Your task to perform on an android device: Search for Mexican restaurants on Maps Image 0: 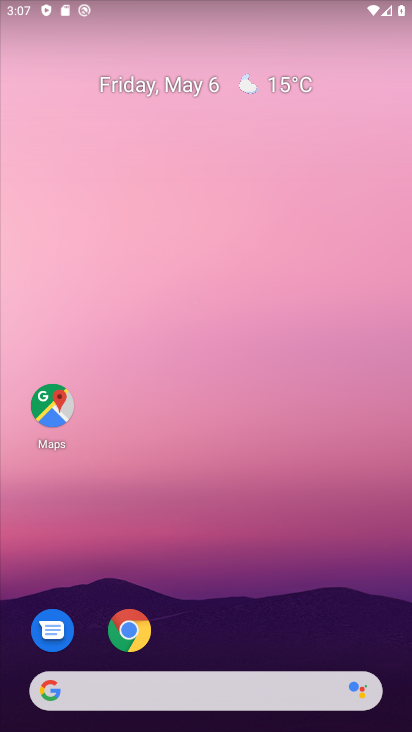
Step 0: click (53, 403)
Your task to perform on an android device: Search for Mexican restaurants on Maps Image 1: 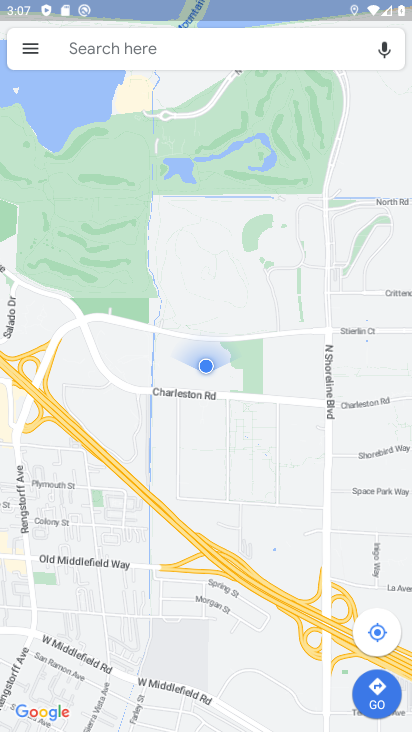
Step 1: click (166, 42)
Your task to perform on an android device: Search for Mexican restaurants on Maps Image 2: 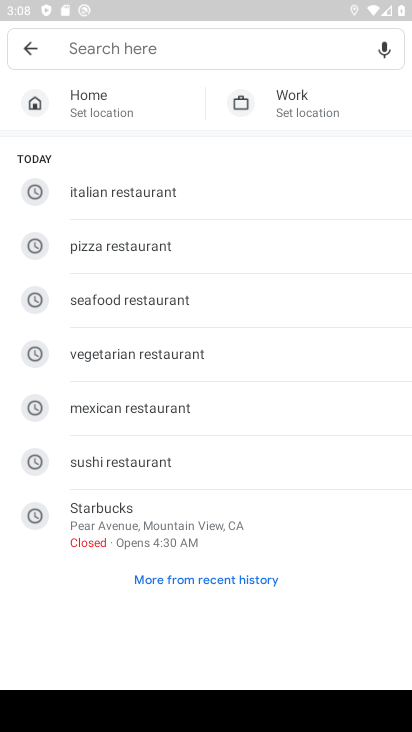
Step 2: click (95, 406)
Your task to perform on an android device: Search for Mexican restaurants on Maps Image 3: 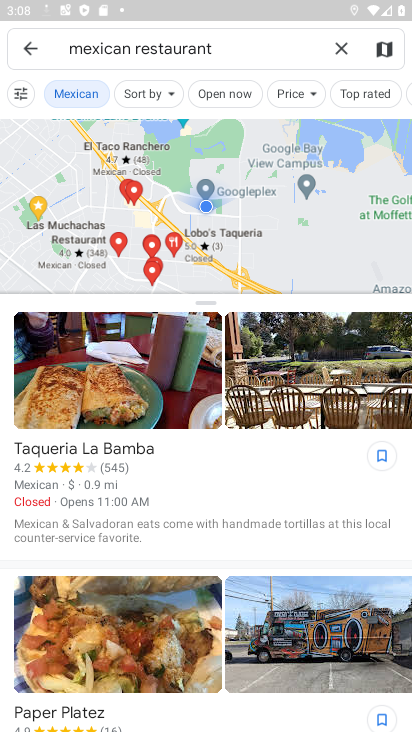
Step 3: task complete